Your task to perform on an android device: Open settings on Google Maps Image 0: 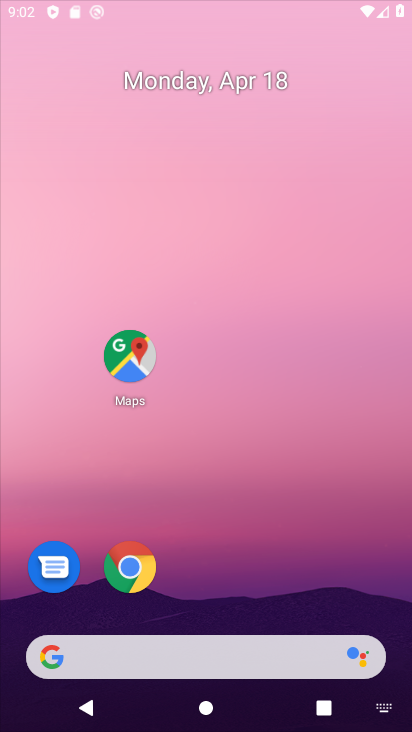
Step 0: click (296, 170)
Your task to perform on an android device: Open settings on Google Maps Image 1: 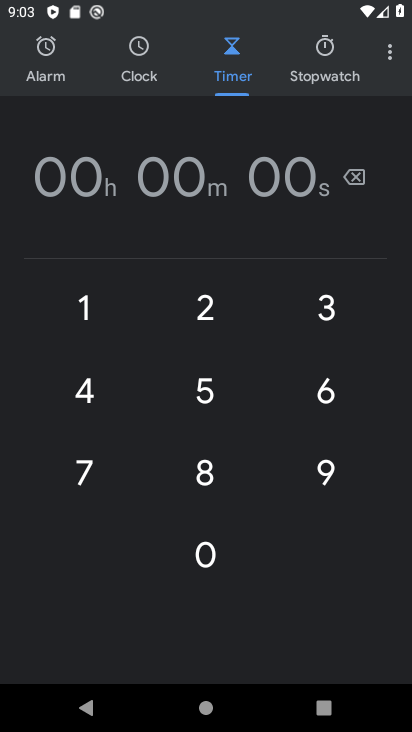
Step 1: press home button
Your task to perform on an android device: Open settings on Google Maps Image 2: 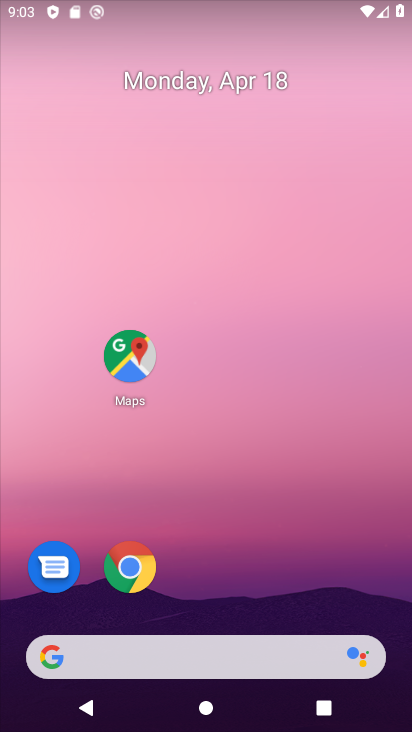
Step 2: click (145, 367)
Your task to perform on an android device: Open settings on Google Maps Image 3: 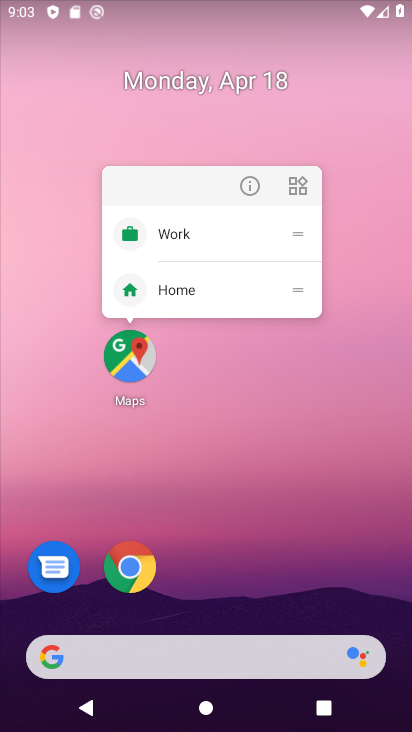
Step 3: click (116, 377)
Your task to perform on an android device: Open settings on Google Maps Image 4: 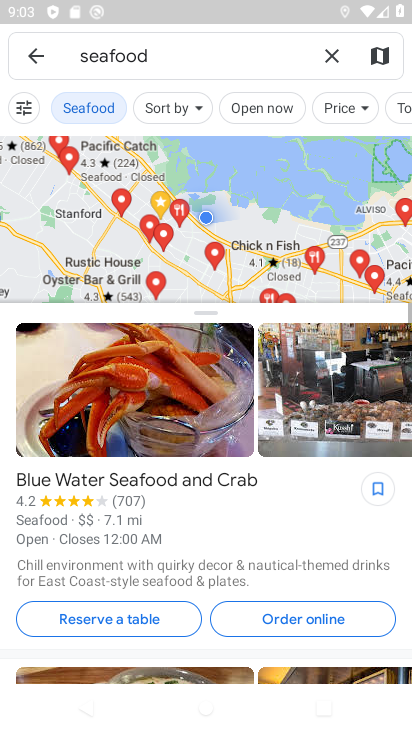
Step 4: click (33, 59)
Your task to perform on an android device: Open settings on Google Maps Image 5: 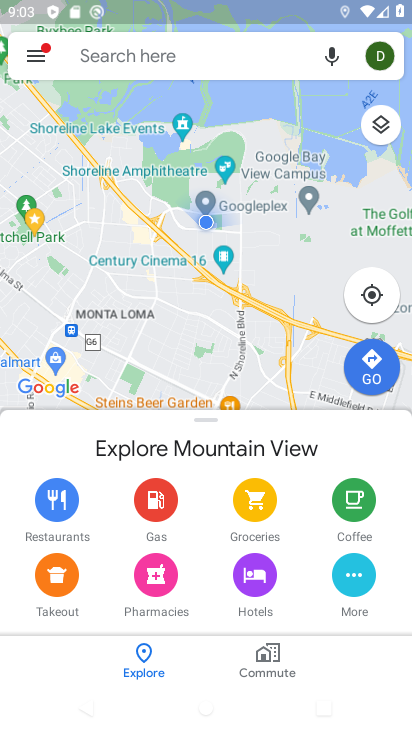
Step 5: click (23, 52)
Your task to perform on an android device: Open settings on Google Maps Image 6: 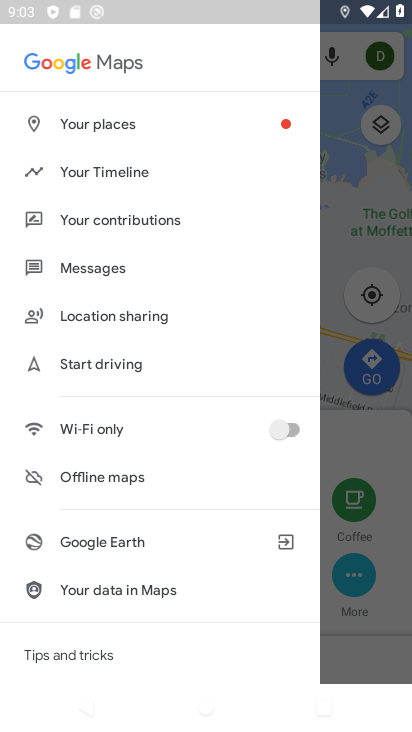
Step 6: drag from (105, 559) to (225, 371)
Your task to perform on an android device: Open settings on Google Maps Image 7: 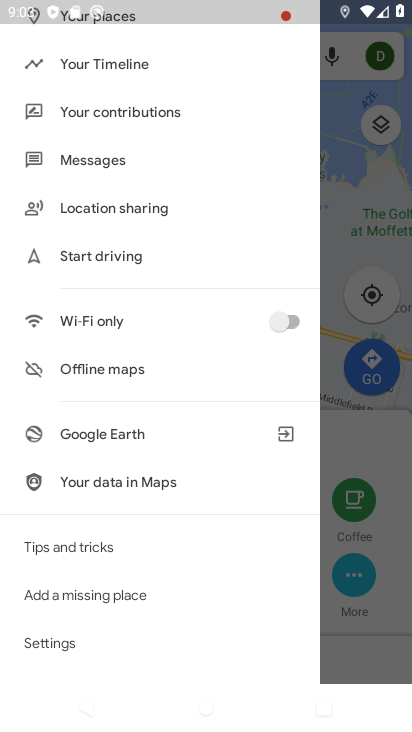
Step 7: click (25, 638)
Your task to perform on an android device: Open settings on Google Maps Image 8: 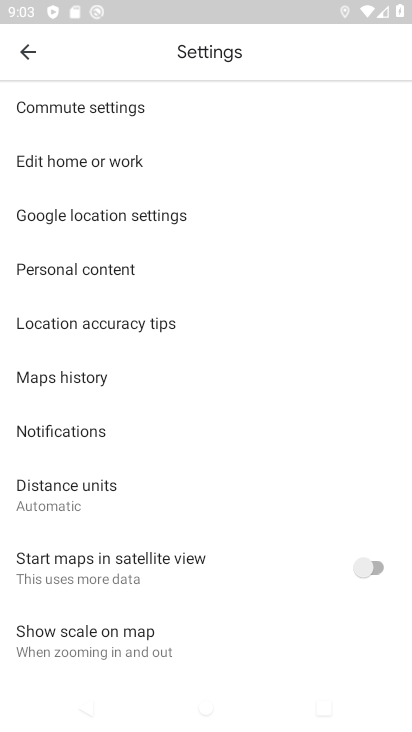
Step 8: task complete